Your task to perform on an android device: Go to accessibility settings Image 0: 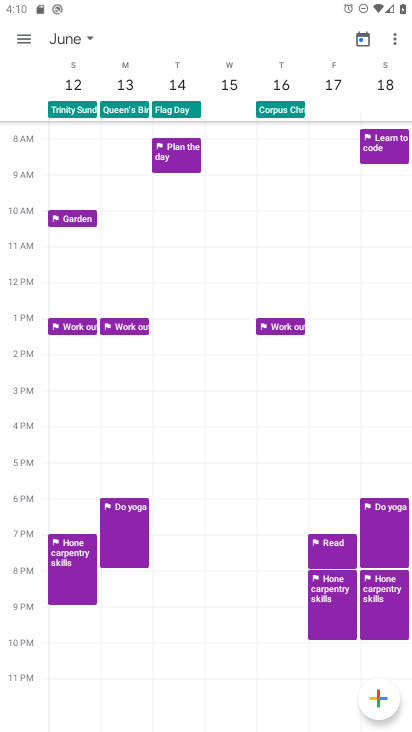
Step 0: press home button
Your task to perform on an android device: Go to accessibility settings Image 1: 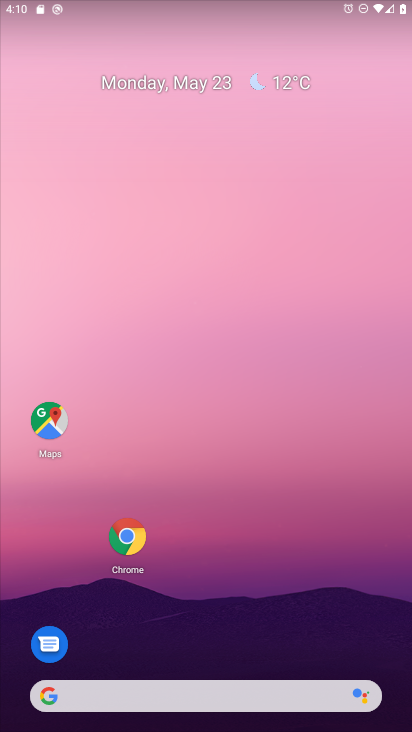
Step 1: drag from (276, 545) to (226, 89)
Your task to perform on an android device: Go to accessibility settings Image 2: 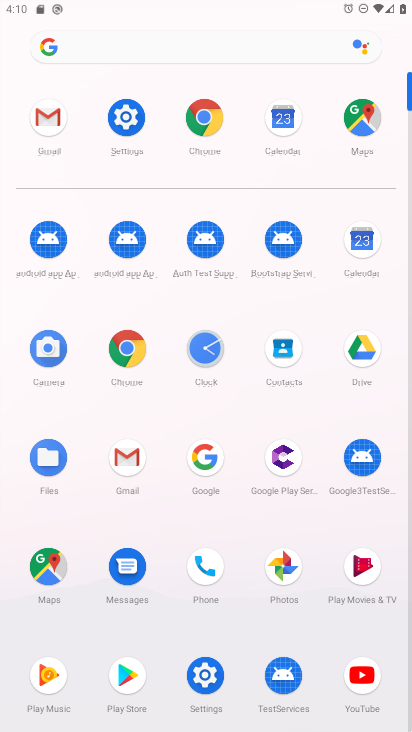
Step 2: click (129, 114)
Your task to perform on an android device: Go to accessibility settings Image 3: 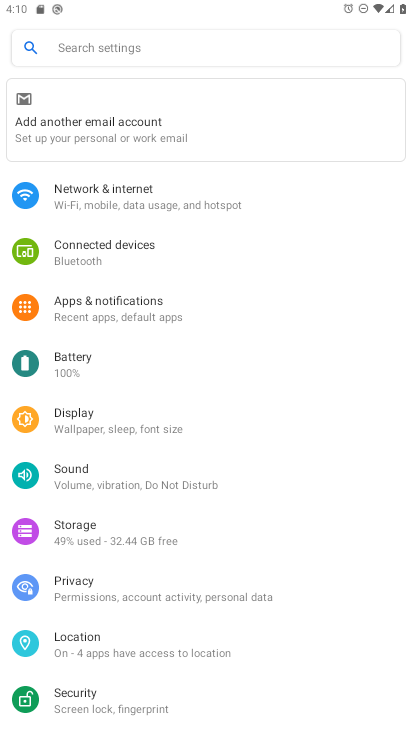
Step 3: drag from (203, 652) to (266, 145)
Your task to perform on an android device: Go to accessibility settings Image 4: 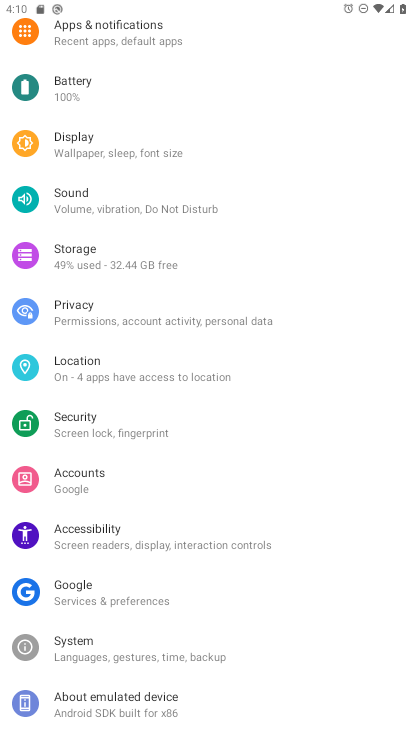
Step 4: drag from (153, 550) to (184, 257)
Your task to perform on an android device: Go to accessibility settings Image 5: 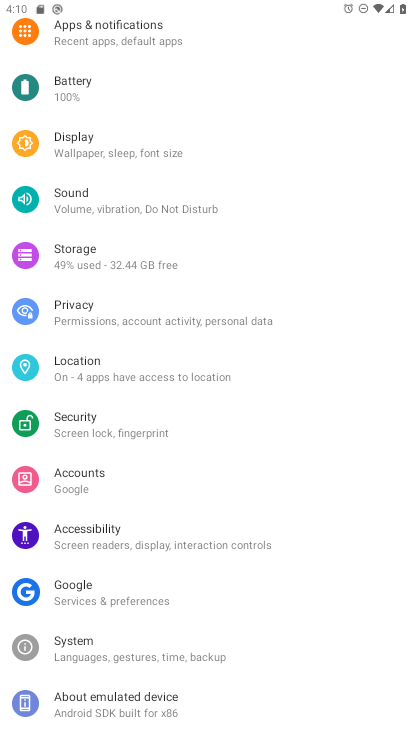
Step 5: click (127, 535)
Your task to perform on an android device: Go to accessibility settings Image 6: 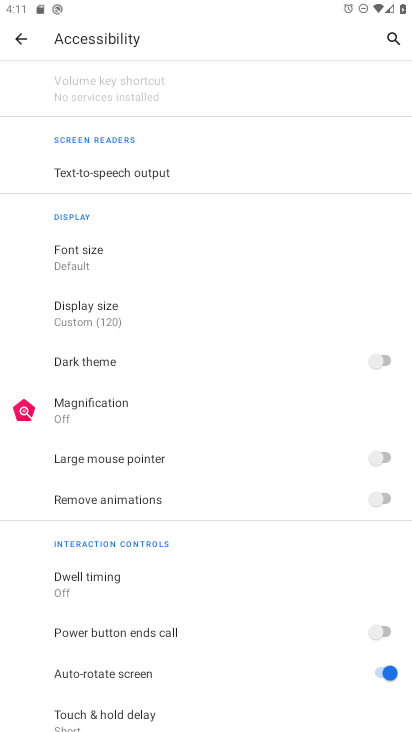
Step 6: task complete